Your task to perform on an android device: toggle javascript in the chrome app Image 0: 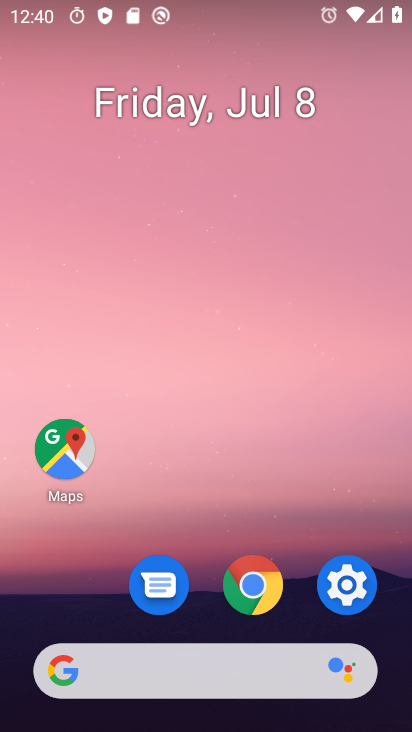
Step 0: click (252, 576)
Your task to perform on an android device: toggle javascript in the chrome app Image 1: 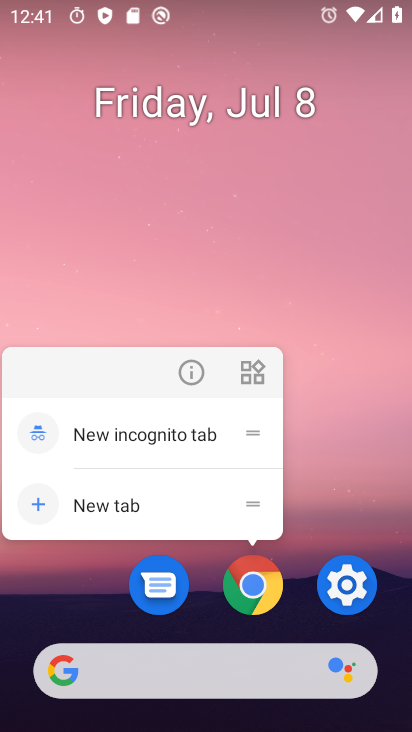
Step 1: click (252, 588)
Your task to perform on an android device: toggle javascript in the chrome app Image 2: 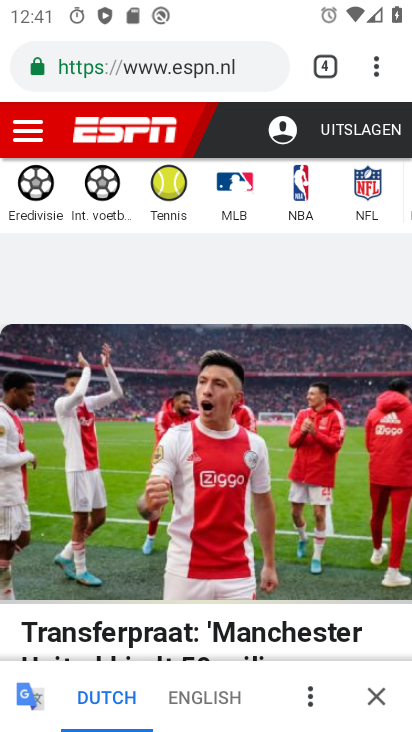
Step 2: click (371, 73)
Your task to perform on an android device: toggle javascript in the chrome app Image 3: 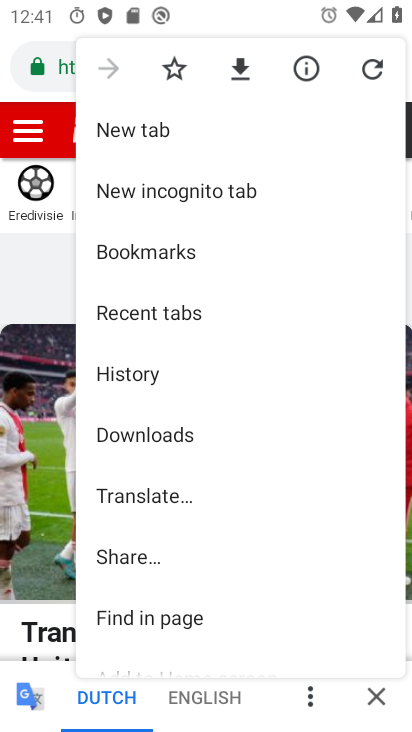
Step 3: drag from (230, 475) to (317, 220)
Your task to perform on an android device: toggle javascript in the chrome app Image 4: 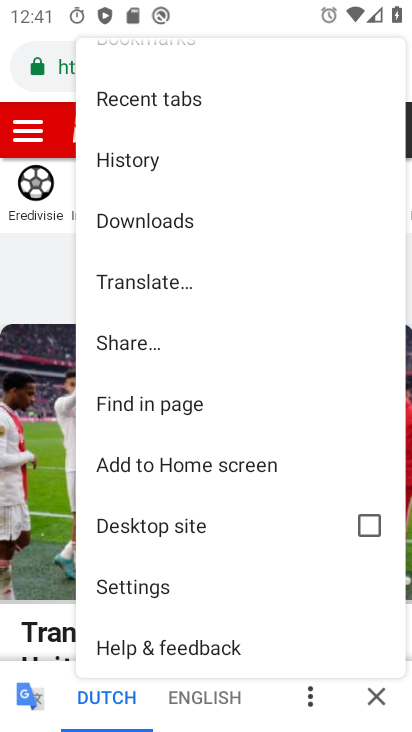
Step 4: click (188, 584)
Your task to perform on an android device: toggle javascript in the chrome app Image 5: 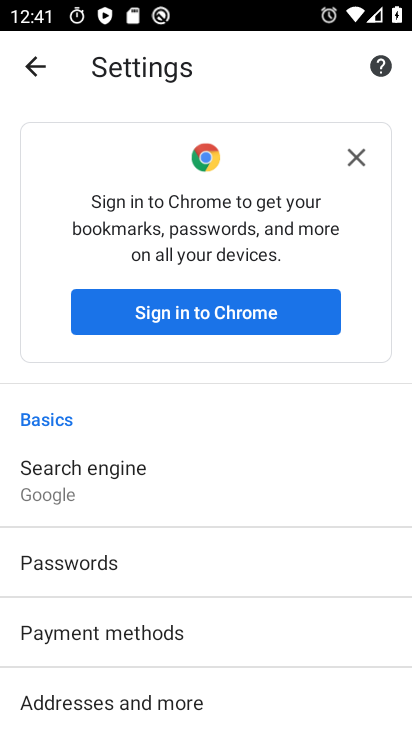
Step 5: drag from (188, 584) to (216, 329)
Your task to perform on an android device: toggle javascript in the chrome app Image 6: 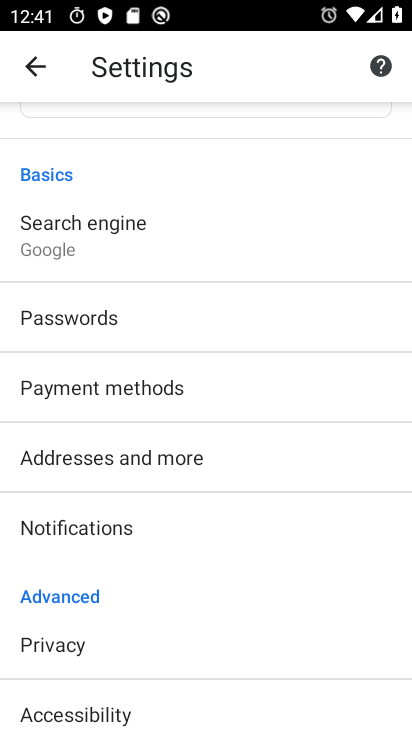
Step 6: drag from (103, 652) to (157, 466)
Your task to perform on an android device: toggle javascript in the chrome app Image 7: 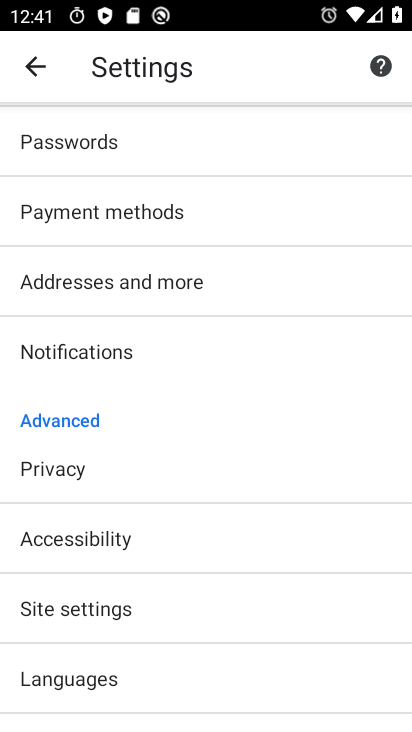
Step 7: click (91, 604)
Your task to perform on an android device: toggle javascript in the chrome app Image 8: 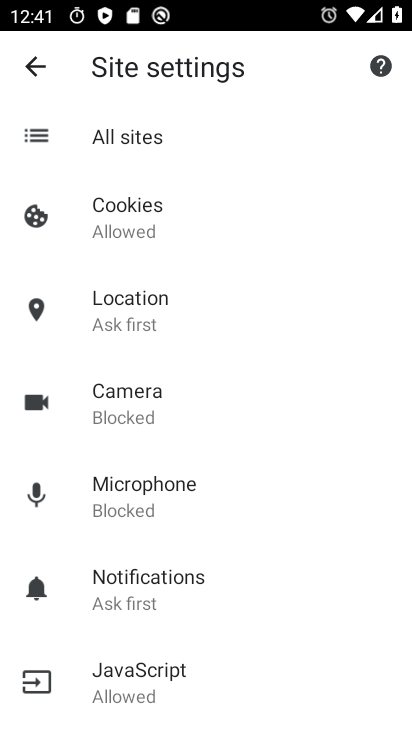
Step 8: click (156, 670)
Your task to perform on an android device: toggle javascript in the chrome app Image 9: 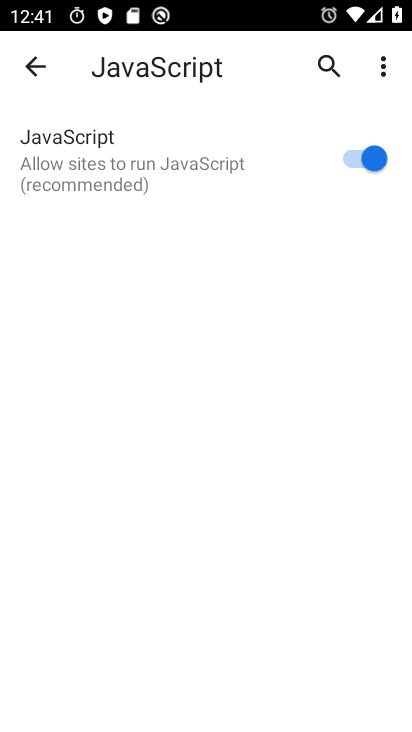
Step 9: task complete